Your task to perform on an android device: check android version Image 0: 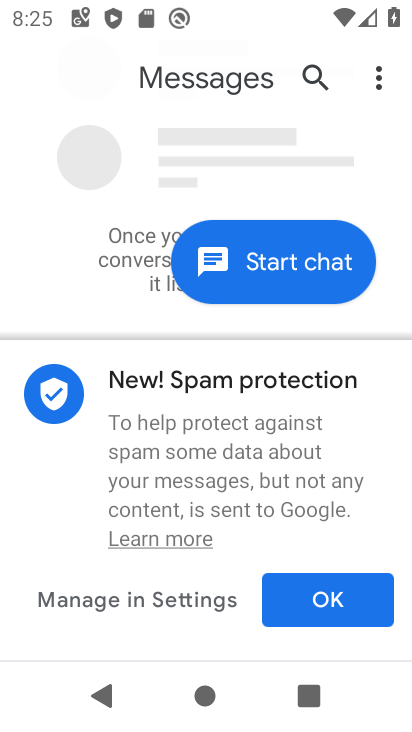
Step 0: drag from (187, 457) to (245, 82)
Your task to perform on an android device: check android version Image 1: 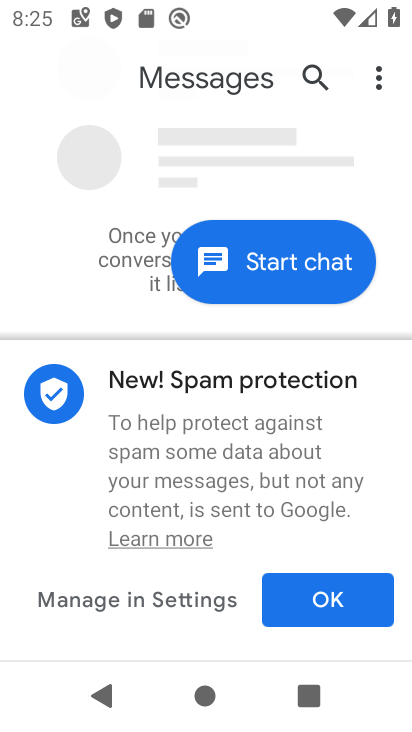
Step 1: press home button
Your task to perform on an android device: check android version Image 2: 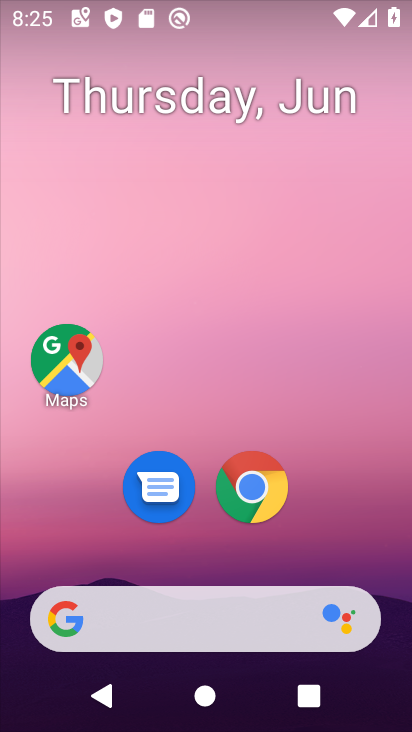
Step 2: drag from (192, 566) to (245, 30)
Your task to perform on an android device: check android version Image 3: 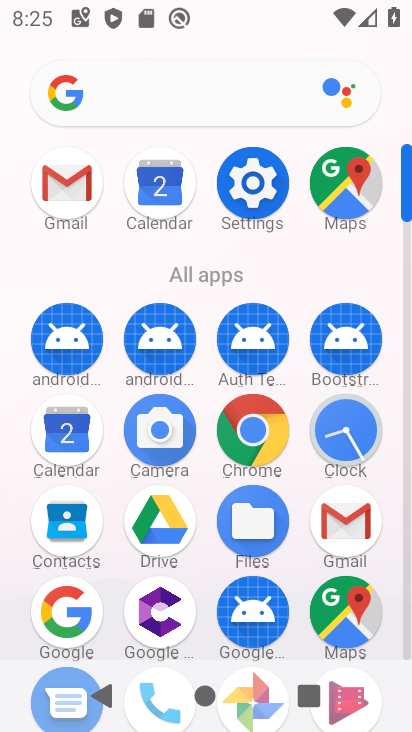
Step 3: click (254, 183)
Your task to perform on an android device: check android version Image 4: 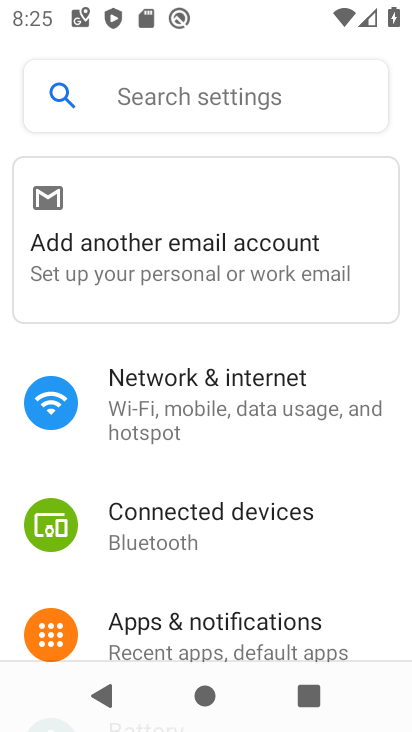
Step 4: drag from (162, 524) to (230, 22)
Your task to perform on an android device: check android version Image 5: 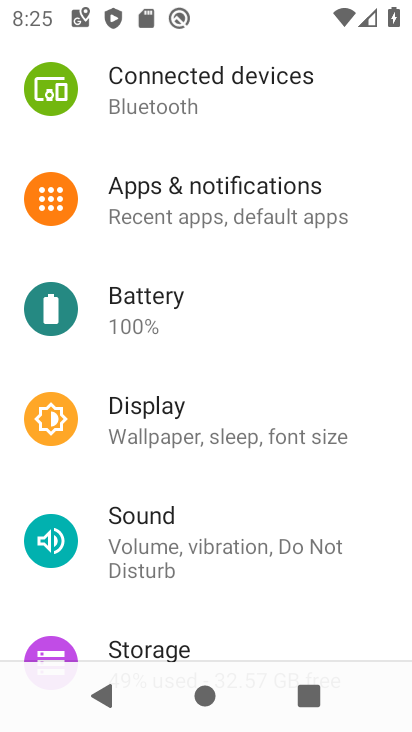
Step 5: drag from (168, 561) to (269, 7)
Your task to perform on an android device: check android version Image 6: 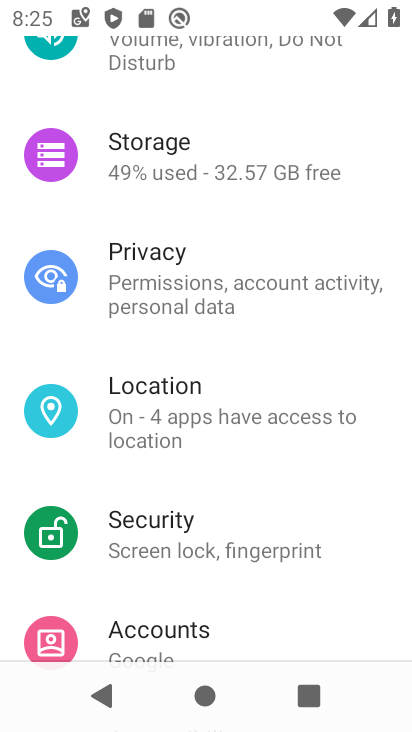
Step 6: drag from (222, 584) to (380, 15)
Your task to perform on an android device: check android version Image 7: 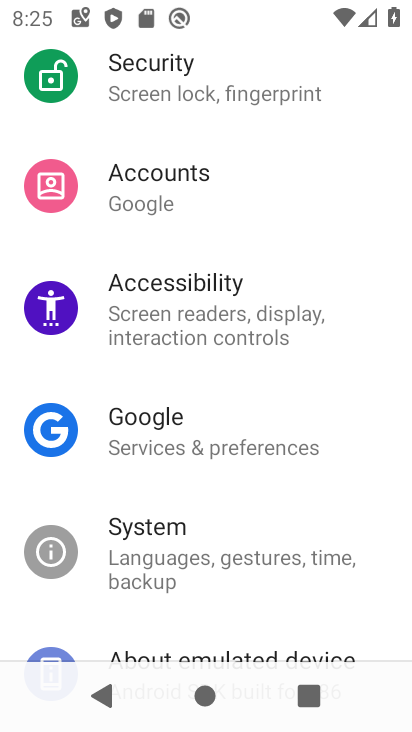
Step 7: drag from (202, 534) to (228, 215)
Your task to perform on an android device: check android version Image 8: 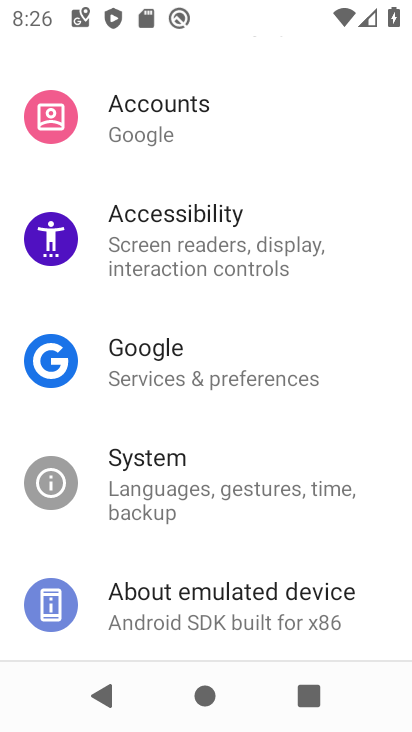
Step 8: click (167, 603)
Your task to perform on an android device: check android version Image 9: 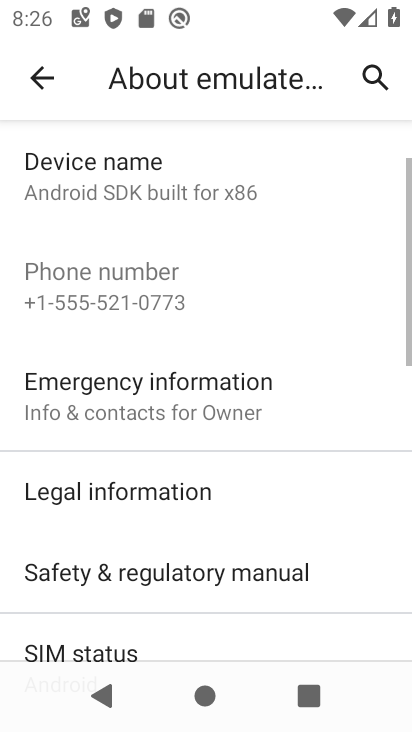
Step 9: drag from (241, 467) to (308, 5)
Your task to perform on an android device: check android version Image 10: 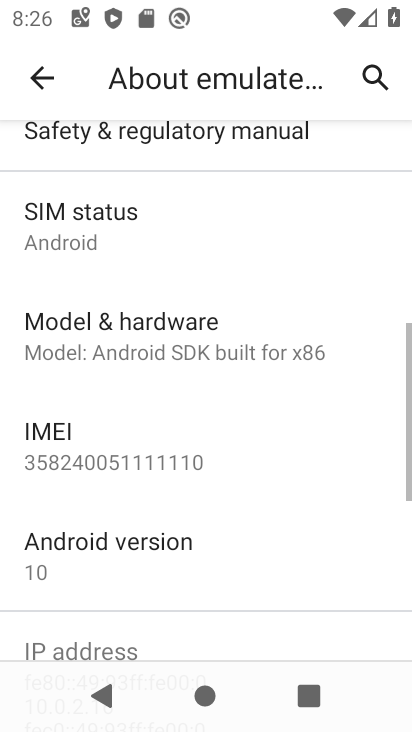
Step 10: click (151, 554)
Your task to perform on an android device: check android version Image 11: 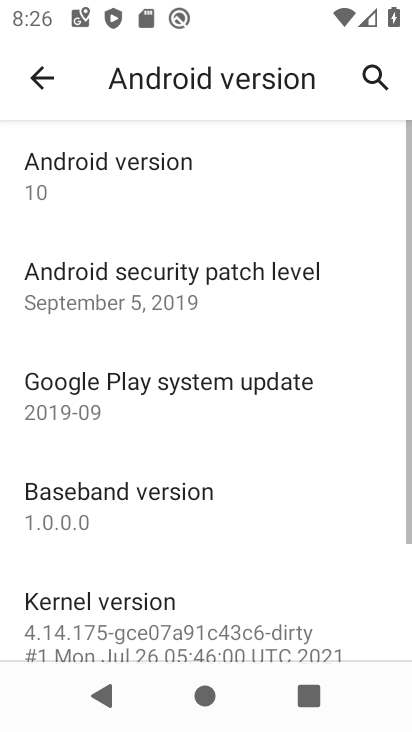
Step 11: drag from (152, 510) to (252, 119)
Your task to perform on an android device: check android version Image 12: 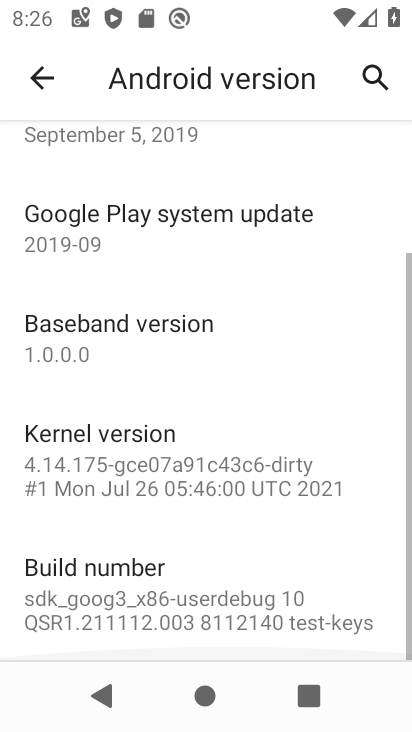
Step 12: drag from (206, 283) to (282, 716)
Your task to perform on an android device: check android version Image 13: 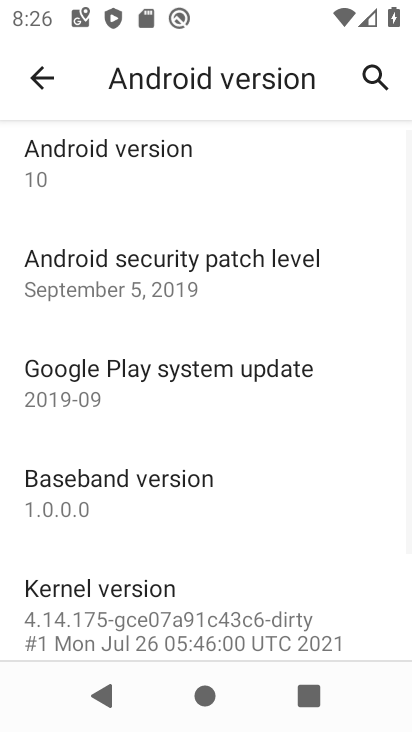
Step 13: click (166, 205)
Your task to perform on an android device: check android version Image 14: 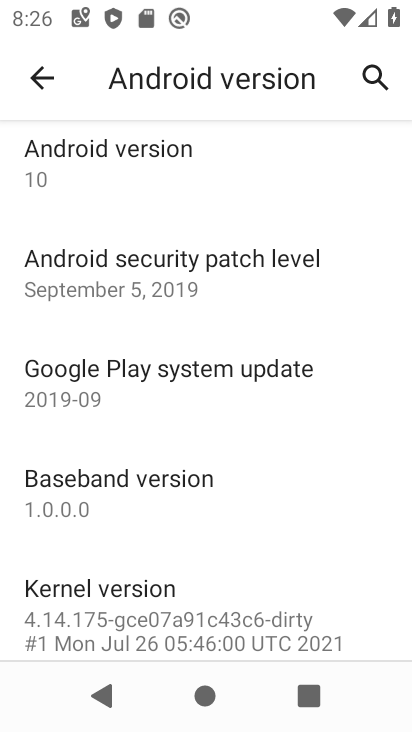
Step 14: click (166, 205)
Your task to perform on an android device: check android version Image 15: 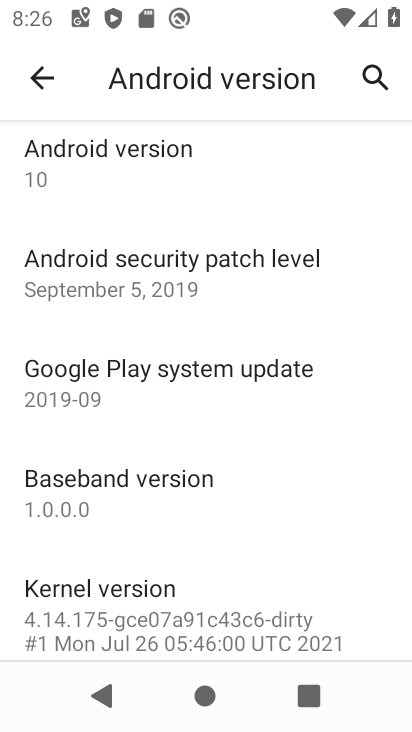
Step 15: task complete